Your task to perform on an android device: change notifications settings Image 0: 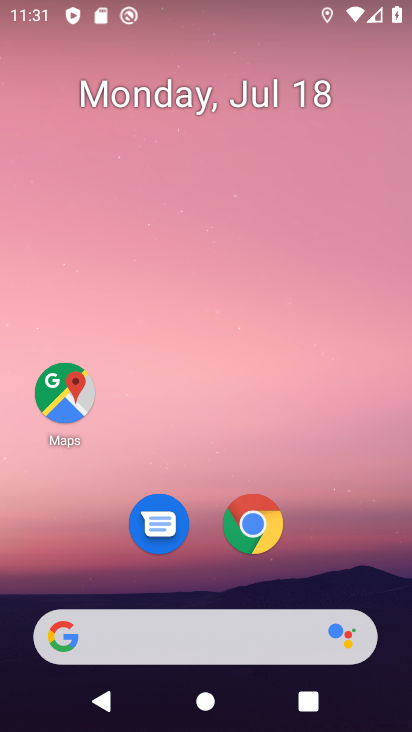
Step 0: drag from (273, 410) to (327, 6)
Your task to perform on an android device: change notifications settings Image 1: 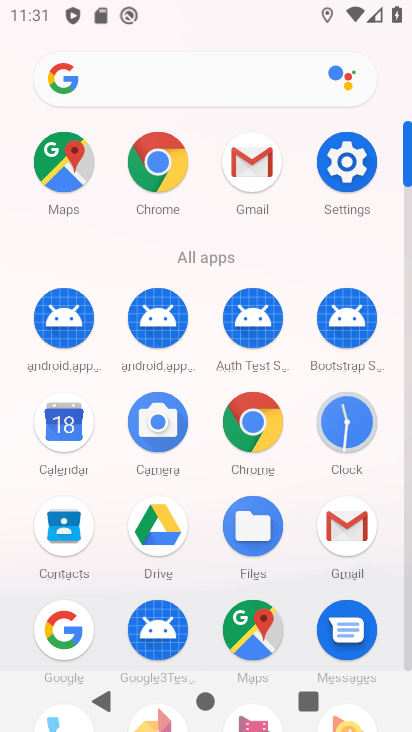
Step 1: click (352, 158)
Your task to perform on an android device: change notifications settings Image 2: 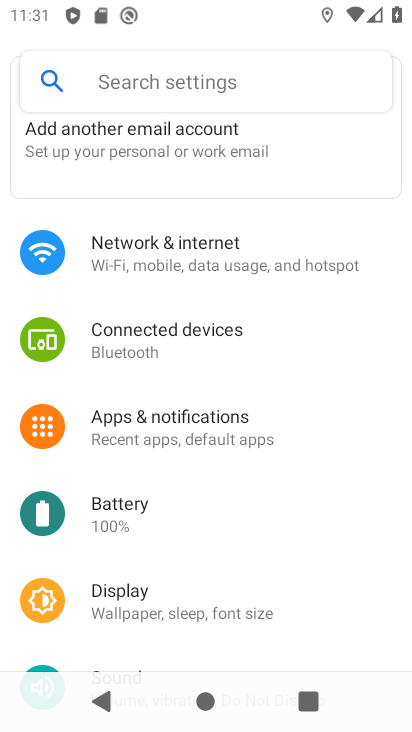
Step 2: click (200, 435)
Your task to perform on an android device: change notifications settings Image 3: 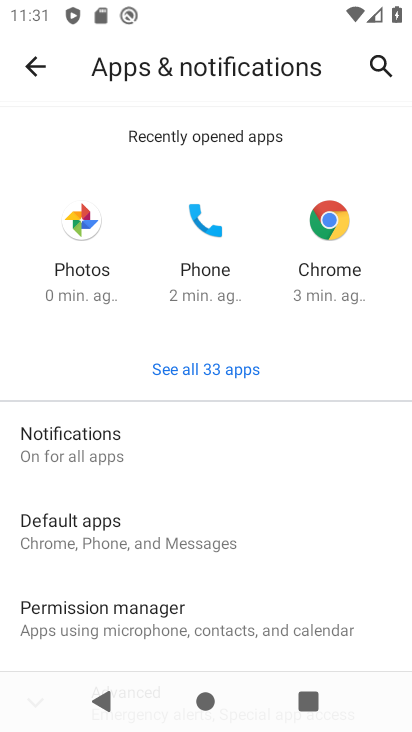
Step 3: click (91, 440)
Your task to perform on an android device: change notifications settings Image 4: 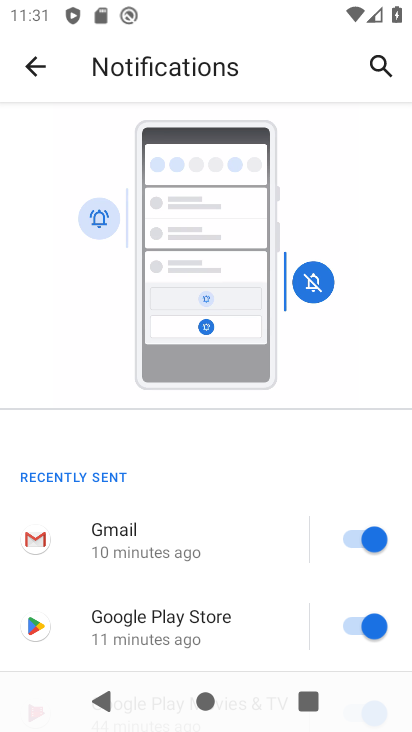
Step 4: drag from (230, 574) to (322, 68)
Your task to perform on an android device: change notifications settings Image 5: 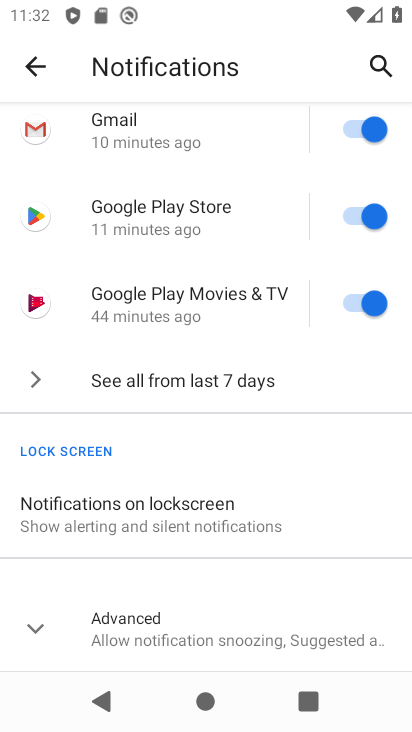
Step 5: click (40, 628)
Your task to perform on an android device: change notifications settings Image 6: 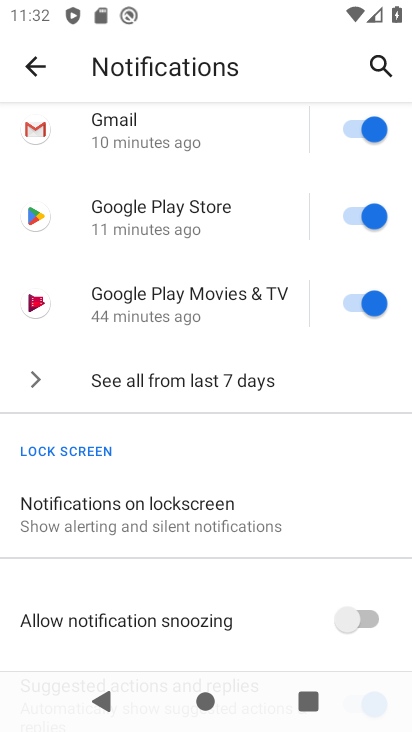
Step 6: click (224, 379)
Your task to perform on an android device: change notifications settings Image 7: 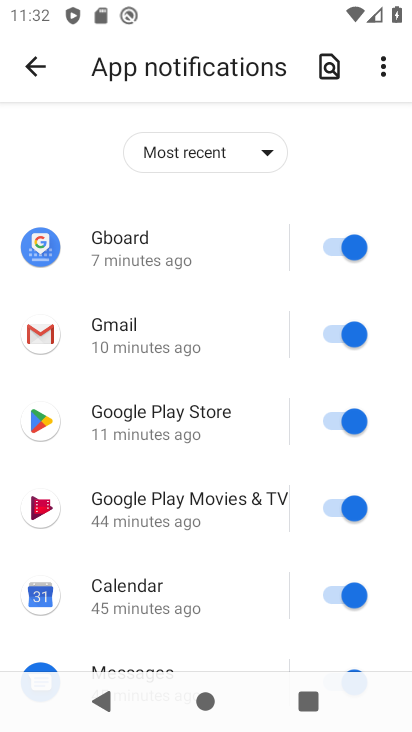
Step 7: click (336, 249)
Your task to perform on an android device: change notifications settings Image 8: 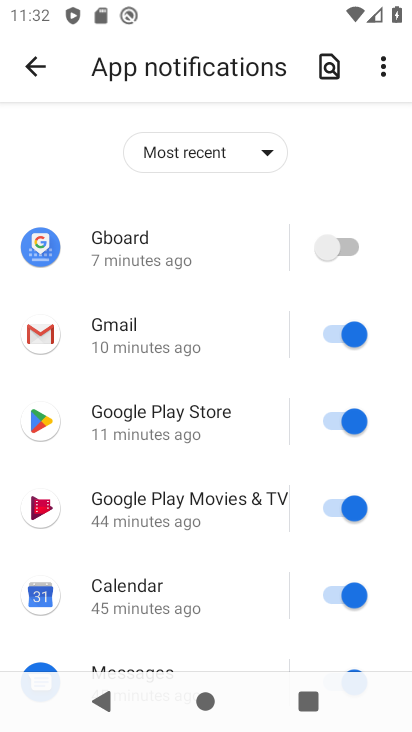
Step 8: click (344, 331)
Your task to perform on an android device: change notifications settings Image 9: 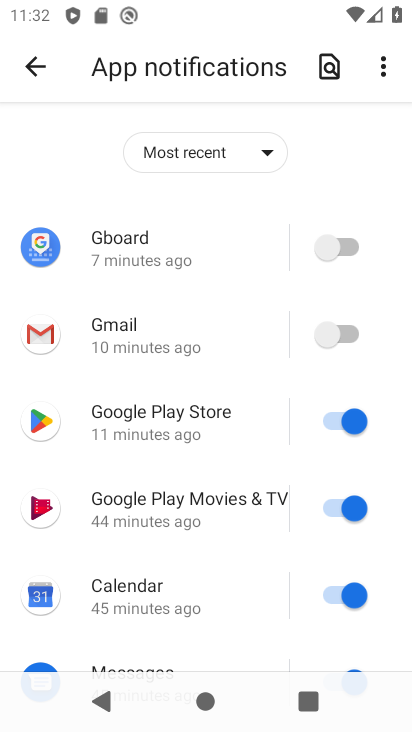
Step 9: click (346, 413)
Your task to perform on an android device: change notifications settings Image 10: 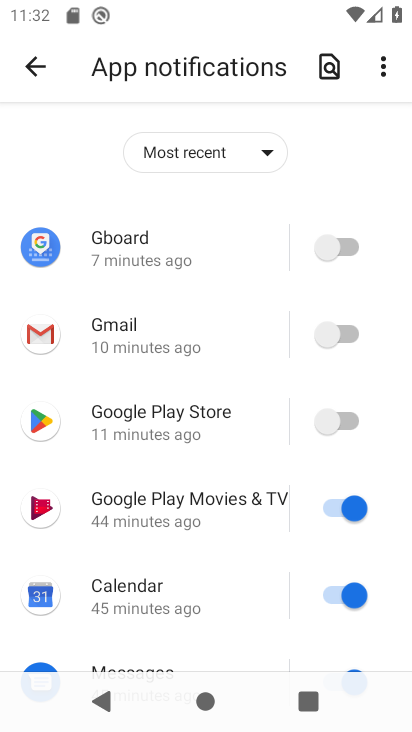
Step 10: click (343, 503)
Your task to perform on an android device: change notifications settings Image 11: 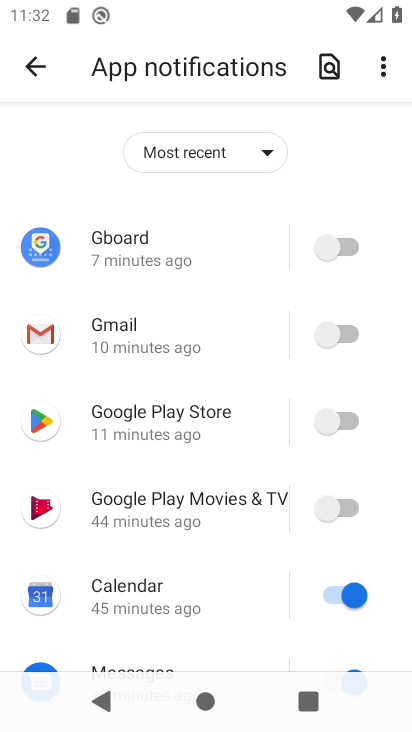
Step 11: click (346, 602)
Your task to perform on an android device: change notifications settings Image 12: 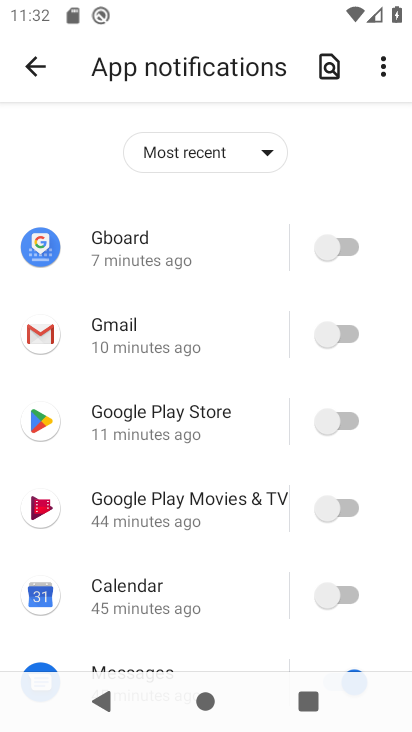
Step 12: drag from (231, 591) to (336, 113)
Your task to perform on an android device: change notifications settings Image 13: 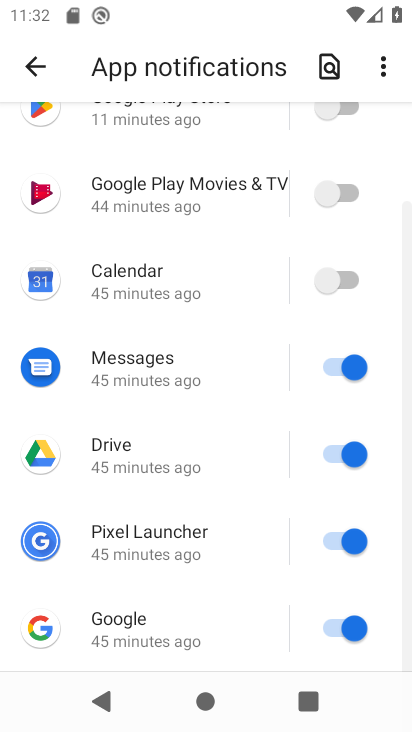
Step 13: click (342, 371)
Your task to perform on an android device: change notifications settings Image 14: 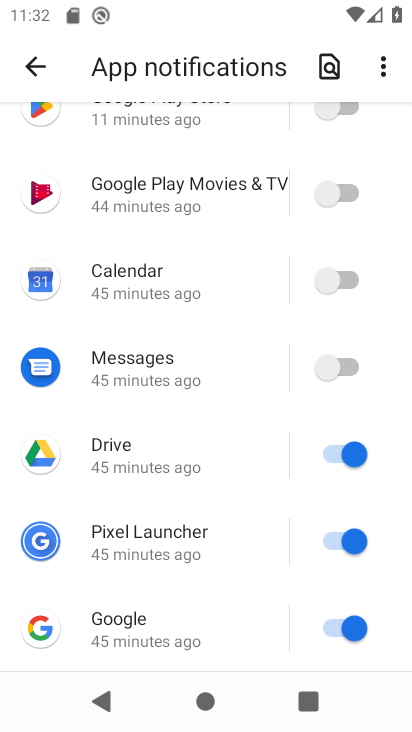
Step 14: click (332, 452)
Your task to perform on an android device: change notifications settings Image 15: 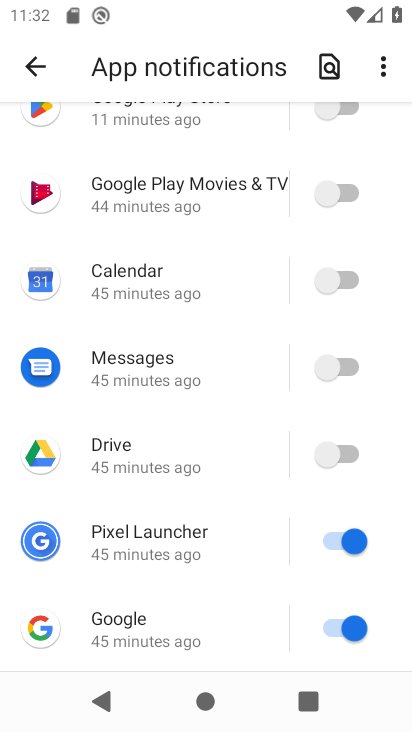
Step 15: click (337, 542)
Your task to perform on an android device: change notifications settings Image 16: 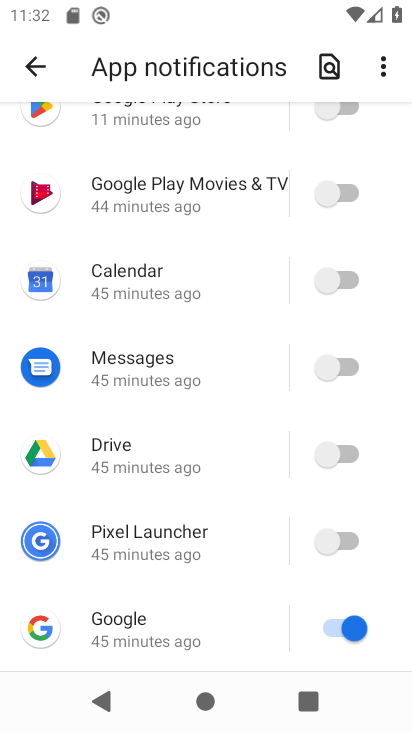
Step 16: click (340, 622)
Your task to perform on an android device: change notifications settings Image 17: 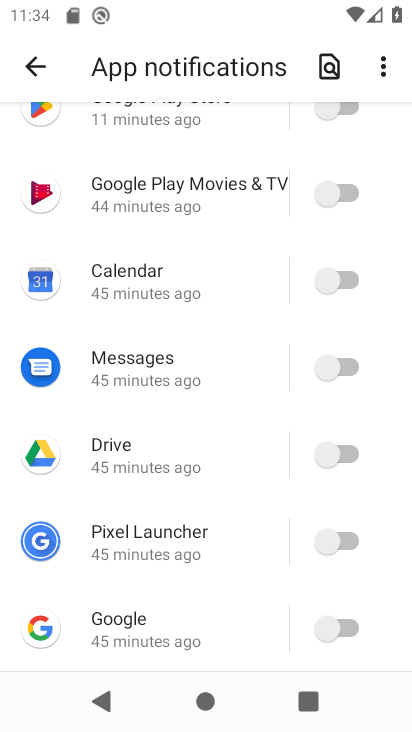
Step 17: task complete